Your task to perform on an android device: Go to accessibility settings Image 0: 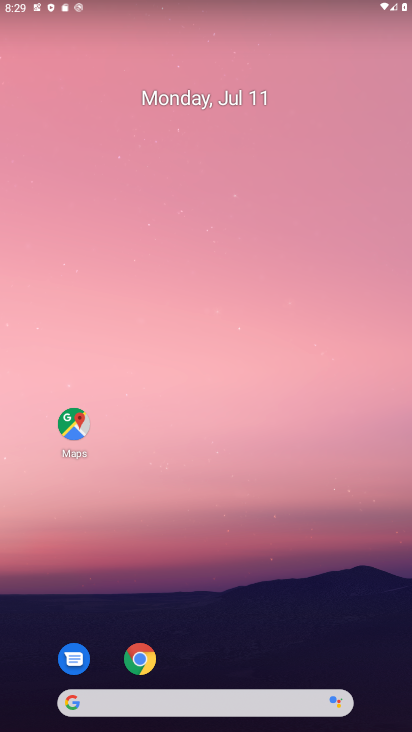
Step 0: drag from (240, 366) to (299, 211)
Your task to perform on an android device: Go to accessibility settings Image 1: 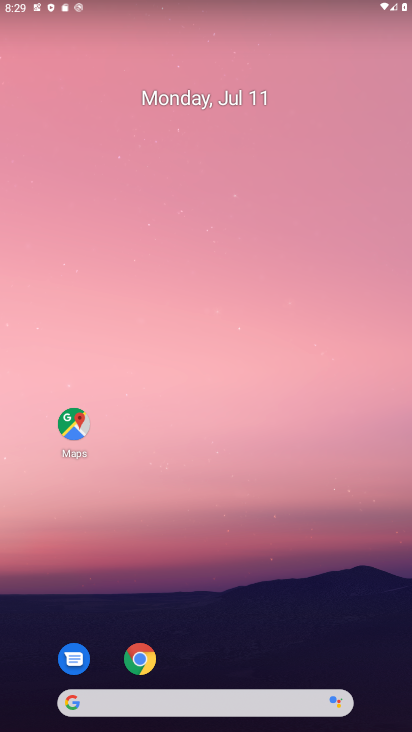
Step 1: drag from (188, 661) to (267, 83)
Your task to perform on an android device: Go to accessibility settings Image 2: 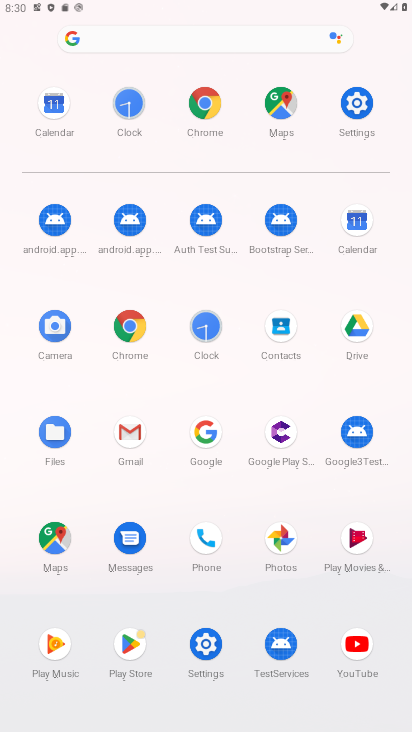
Step 2: click (356, 88)
Your task to perform on an android device: Go to accessibility settings Image 3: 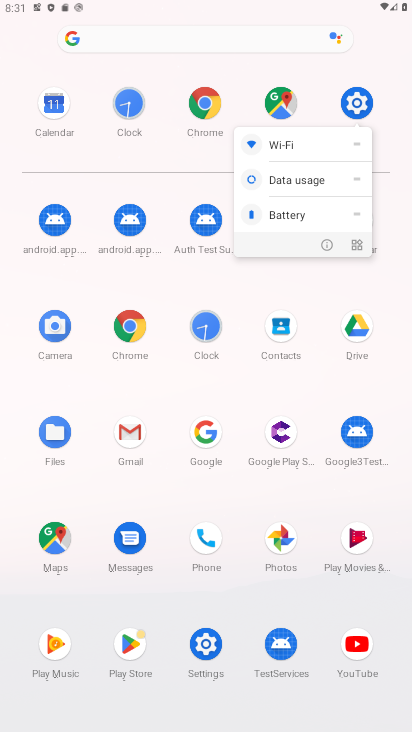
Step 3: click (317, 243)
Your task to perform on an android device: Go to accessibility settings Image 4: 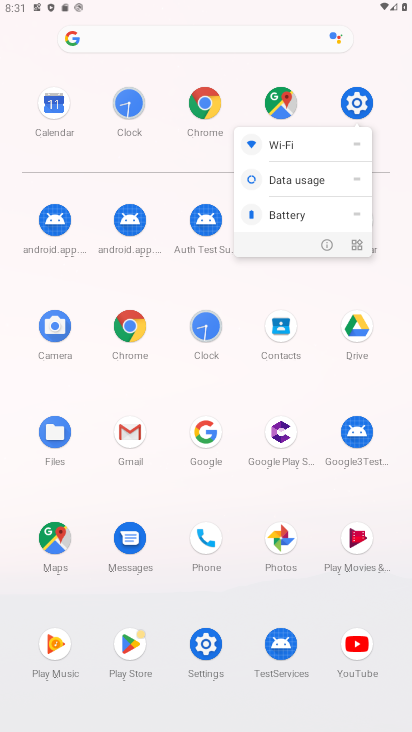
Step 4: click (324, 246)
Your task to perform on an android device: Go to accessibility settings Image 5: 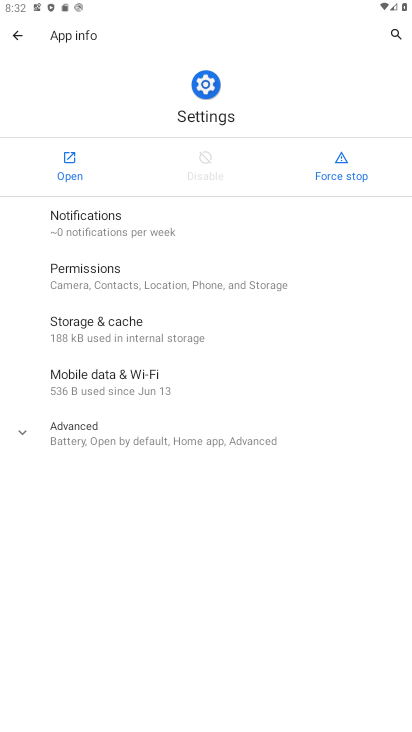
Step 5: click (66, 158)
Your task to perform on an android device: Go to accessibility settings Image 6: 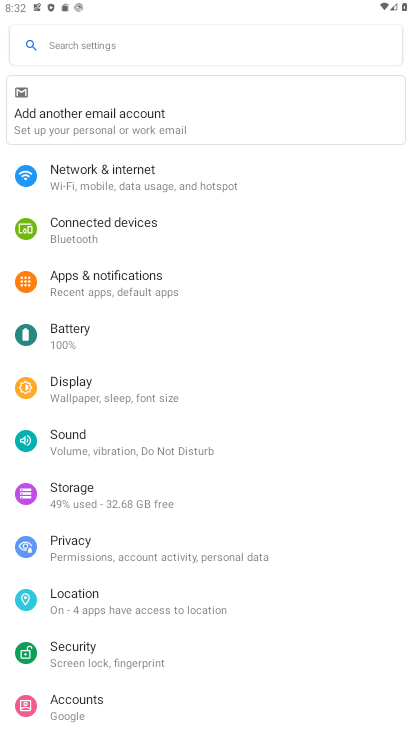
Step 6: drag from (107, 647) to (265, 110)
Your task to perform on an android device: Go to accessibility settings Image 7: 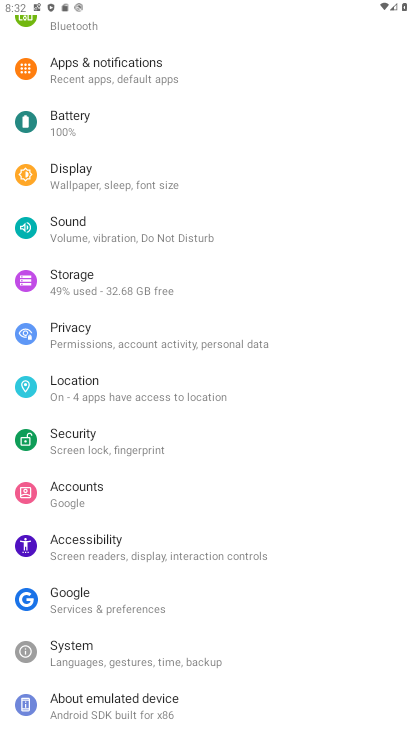
Step 7: click (113, 534)
Your task to perform on an android device: Go to accessibility settings Image 8: 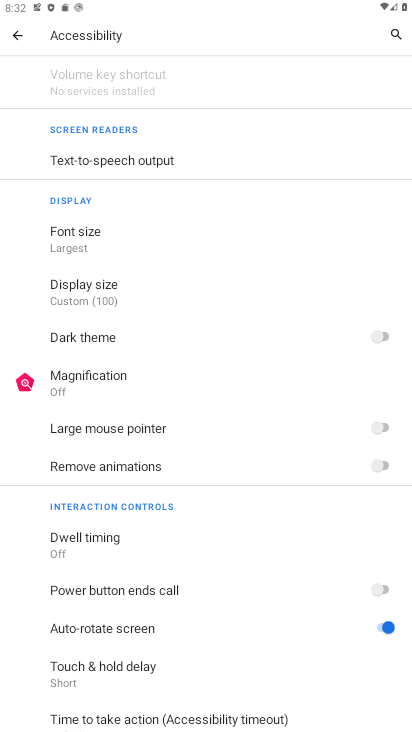
Step 8: task complete